Your task to perform on an android device: choose inbox layout in the gmail app Image 0: 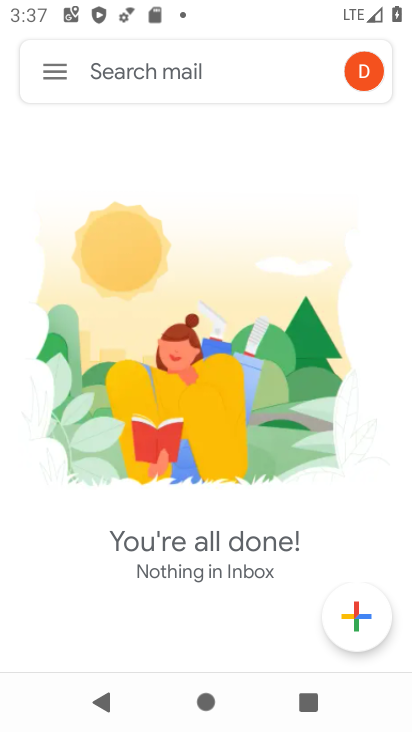
Step 0: press home button
Your task to perform on an android device: choose inbox layout in the gmail app Image 1: 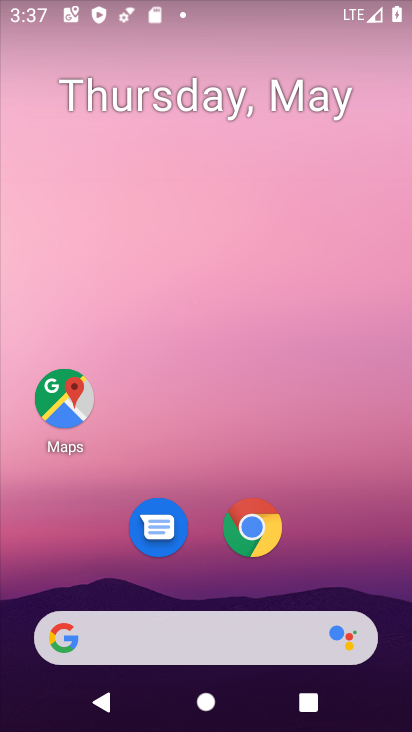
Step 1: drag from (385, 573) to (286, 23)
Your task to perform on an android device: choose inbox layout in the gmail app Image 2: 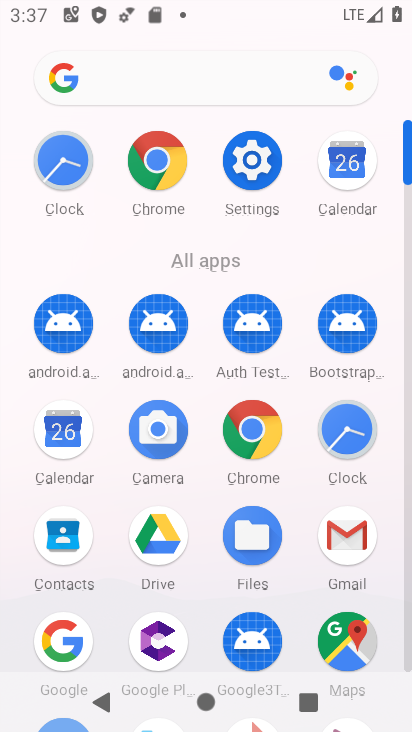
Step 2: click (342, 528)
Your task to perform on an android device: choose inbox layout in the gmail app Image 3: 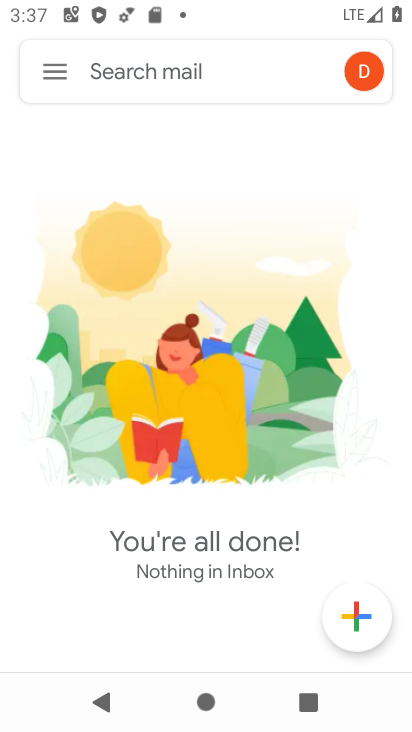
Step 3: click (47, 68)
Your task to perform on an android device: choose inbox layout in the gmail app Image 4: 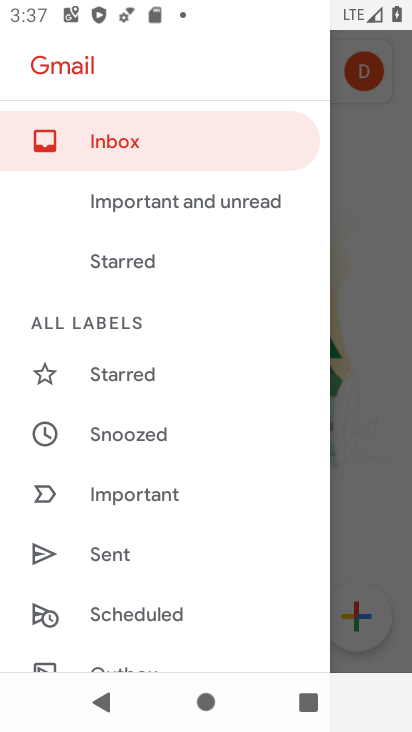
Step 4: drag from (211, 595) to (163, 199)
Your task to perform on an android device: choose inbox layout in the gmail app Image 5: 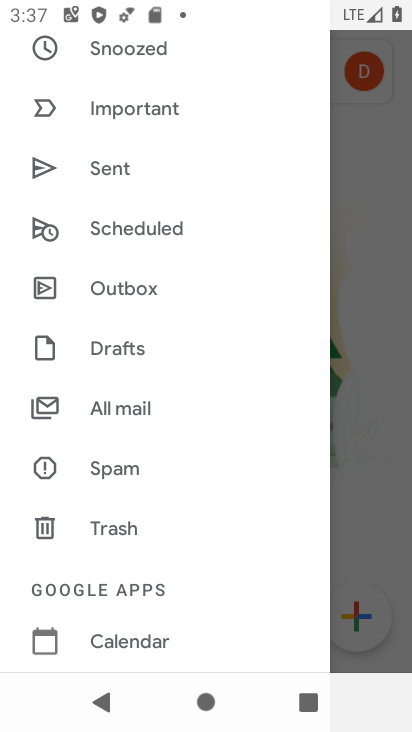
Step 5: drag from (202, 622) to (156, 76)
Your task to perform on an android device: choose inbox layout in the gmail app Image 6: 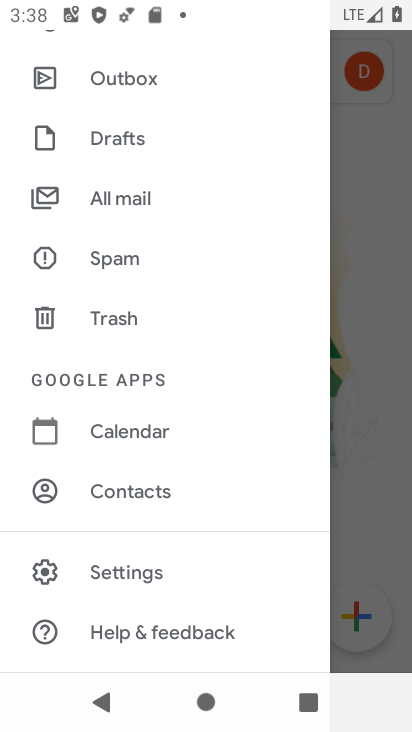
Step 6: click (151, 568)
Your task to perform on an android device: choose inbox layout in the gmail app Image 7: 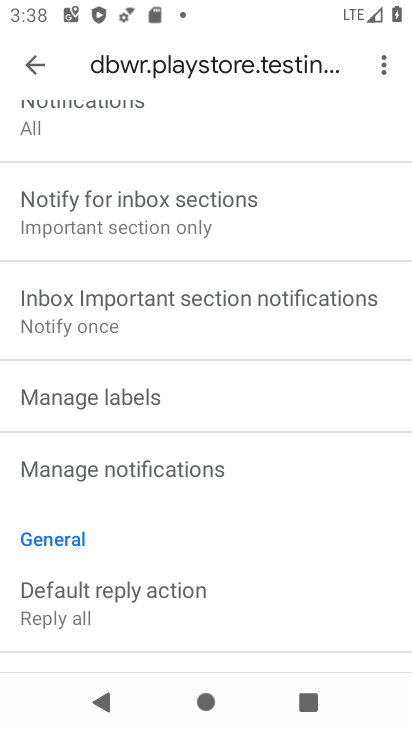
Step 7: drag from (280, 203) to (279, 489)
Your task to perform on an android device: choose inbox layout in the gmail app Image 8: 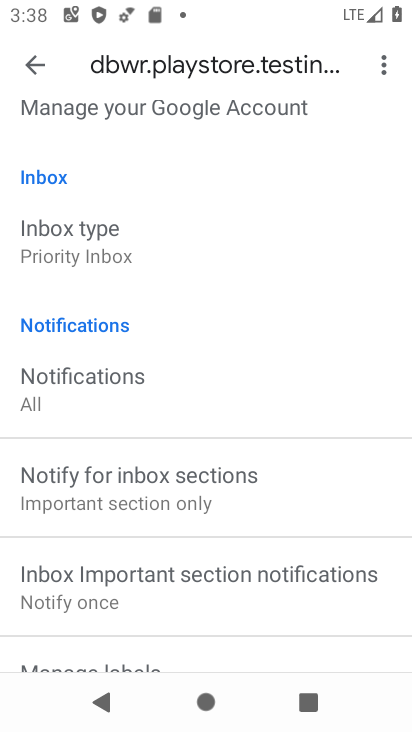
Step 8: click (54, 245)
Your task to perform on an android device: choose inbox layout in the gmail app Image 9: 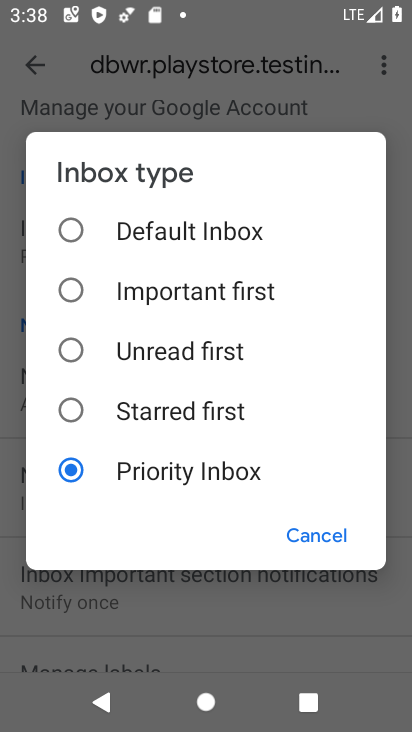
Step 9: click (70, 231)
Your task to perform on an android device: choose inbox layout in the gmail app Image 10: 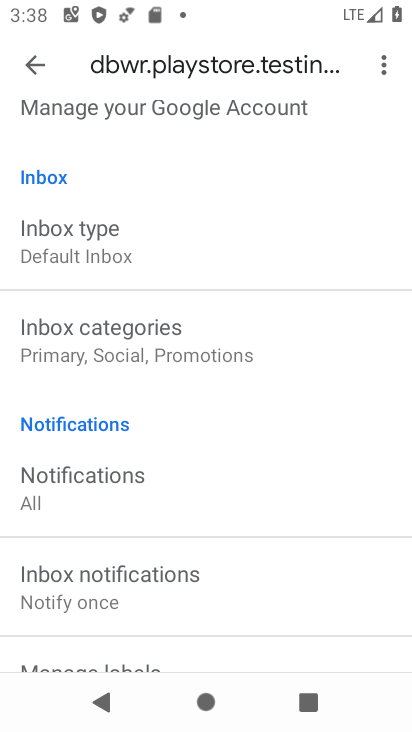
Step 10: task complete